Your task to perform on an android device: check out phone information Image 0: 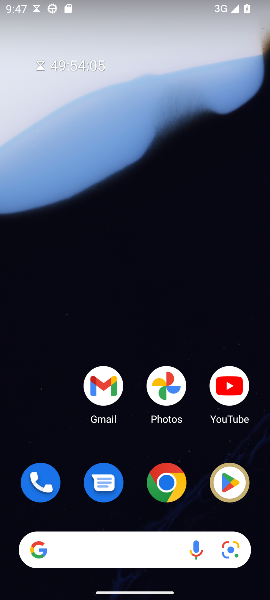
Step 0: drag from (4, 222) to (19, 126)
Your task to perform on an android device: check out phone information Image 1: 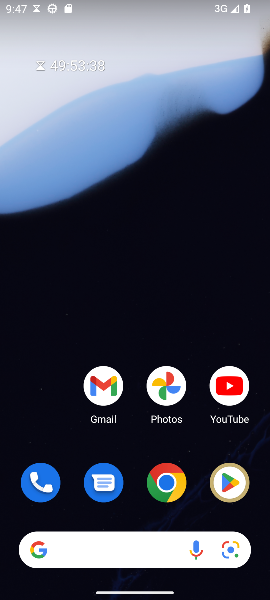
Step 1: drag from (63, 465) to (98, 117)
Your task to perform on an android device: check out phone information Image 2: 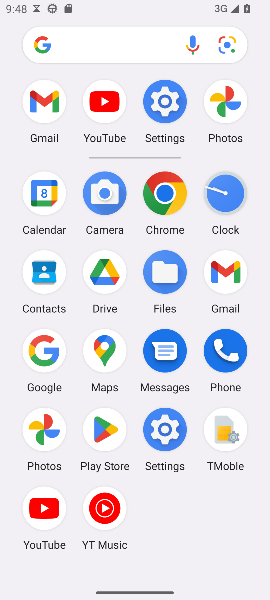
Step 2: click (169, 96)
Your task to perform on an android device: check out phone information Image 3: 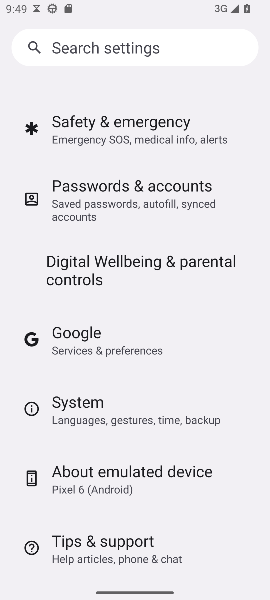
Step 3: drag from (150, 113) to (137, 471)
Your task to perform on an android device: check out phone information Image 4: 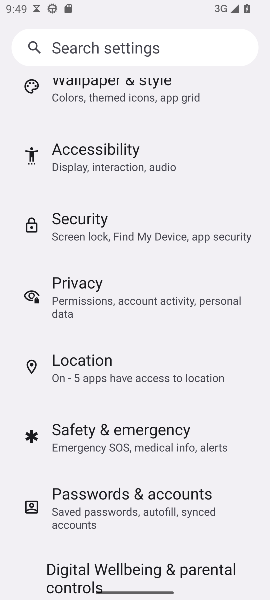
Step 4: drag from (100, 393) to (152, 51)
Your task to perform on an android device: check out phone information Image 5: 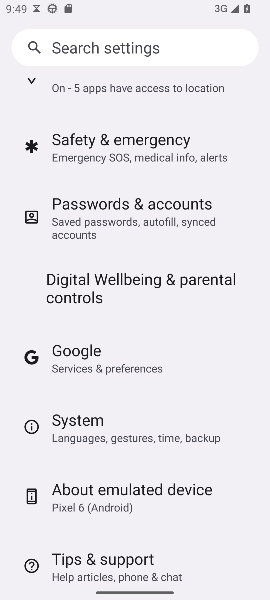
Step 5: drag from (195, 455) to (172, 156)
Your task to perform on an android device: check out phone information Image 6: 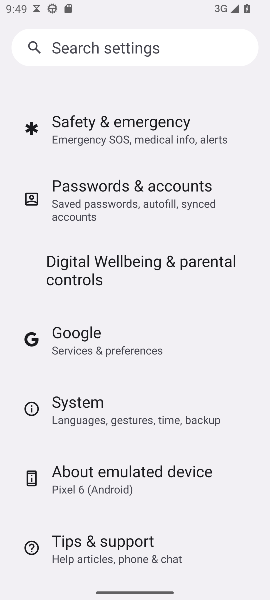
Step 6: drag from (152, 507) to (120, 179)
Your task to perform on an android device: check out phone information Image 7: 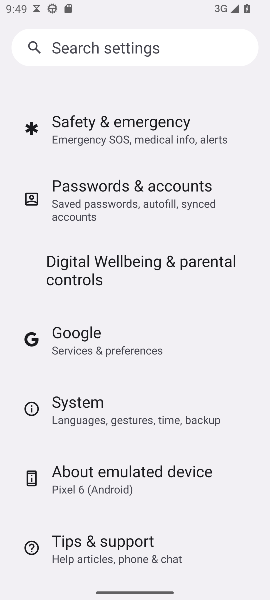
Step 7: drag from (125, 554) to (105, 247)
Your task to perform on an android device: check out phone information Image 8: 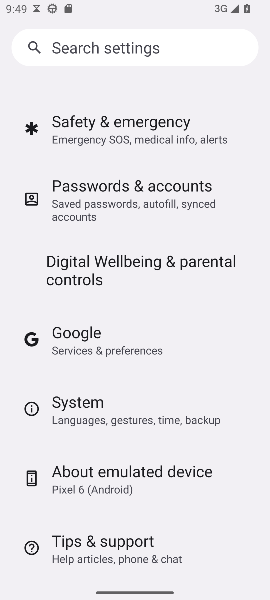
Step 8: click (116, 486)
Your task to perform on an android device: check out phone information Image 9: 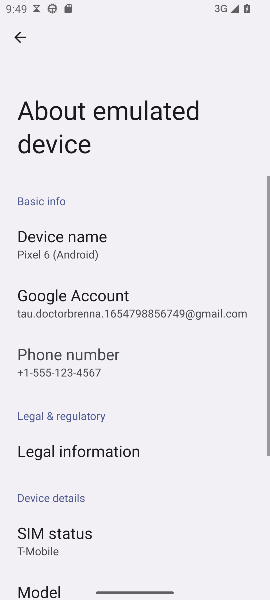
Step 9: task complete